Your task to perform on an android device: Open accessibility settings Image 0: 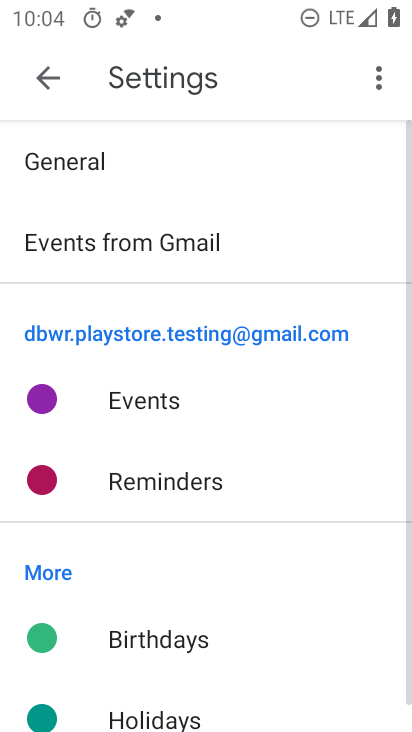
Step 0: press home button
Your task to perform on an android device: Open accessibility settings Image 1: 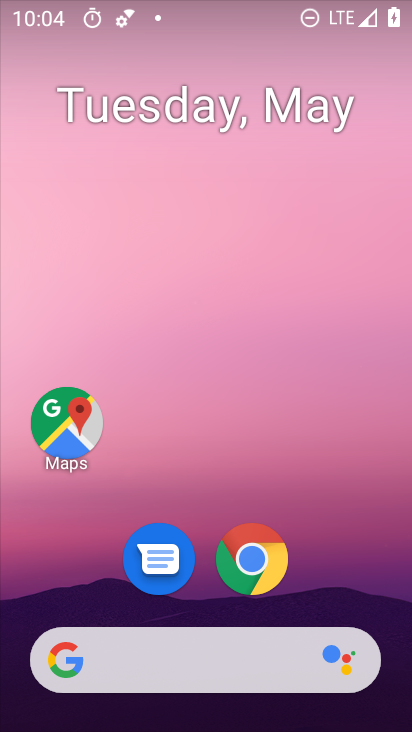
Step 1: drag from (395, 668) to (410, 225)
Your task to perform on an android device: Open accessibility settings Image 2: 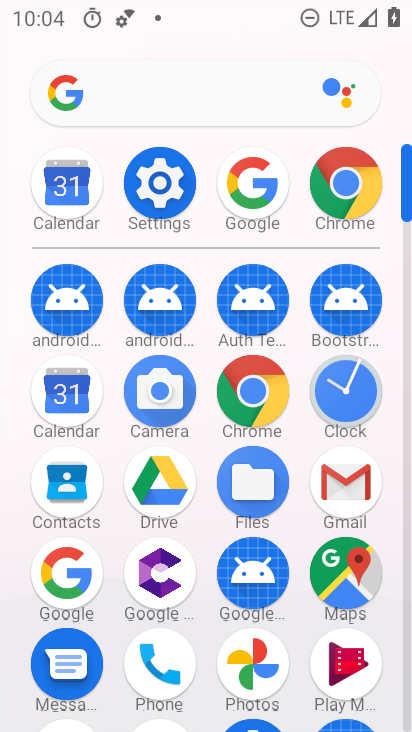
Step 2: click (141, 197)
Your task to perform on an android device: Open accessibility settings Image 3: 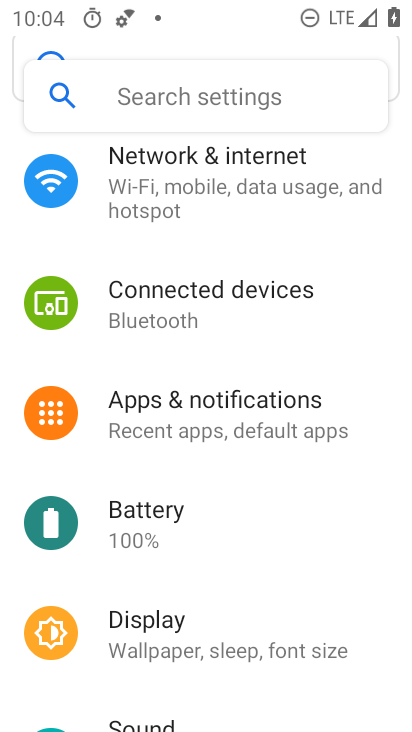
Step 3: drag from (267, 650) to (293, 144)
Your task to perform on an android device: Open accessibility settings Image 4: 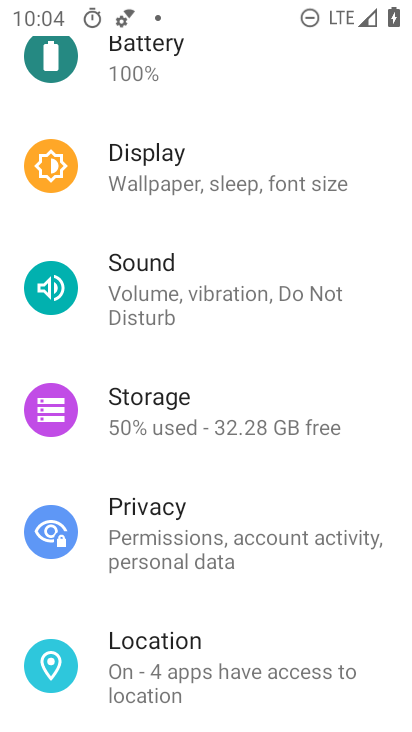
Step 4: drag from (192, 707) to (223, 127)
Your task to perform on an android device: Open accessibility settings Image 5: 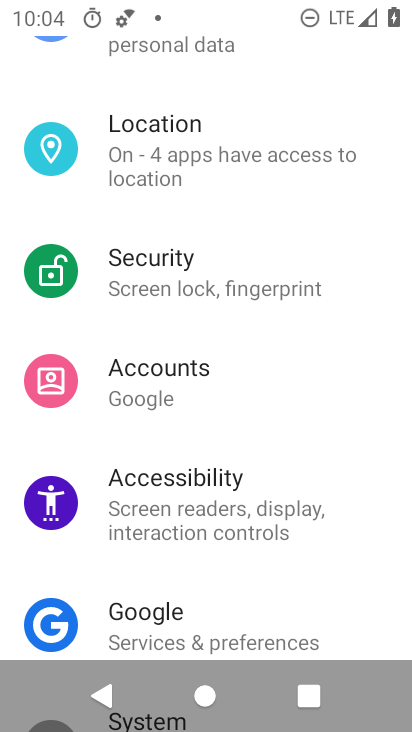
Step 5: click (215, 546)
Your task to perform on an android device: Open accessibility settings Image 6: 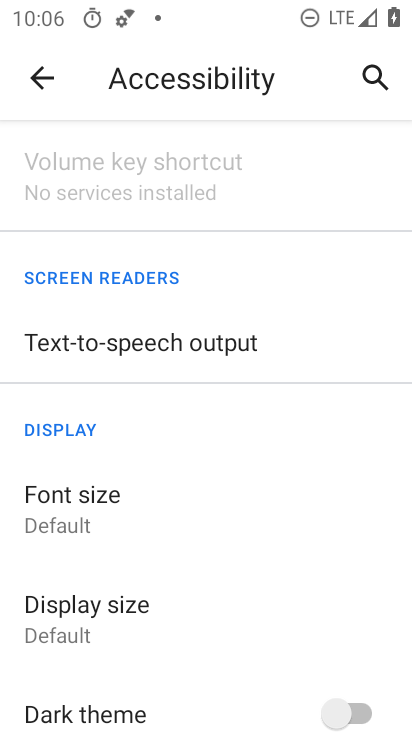
Step 6: task complete